Your task to perform on an android device: turn notification dots off Image 0: 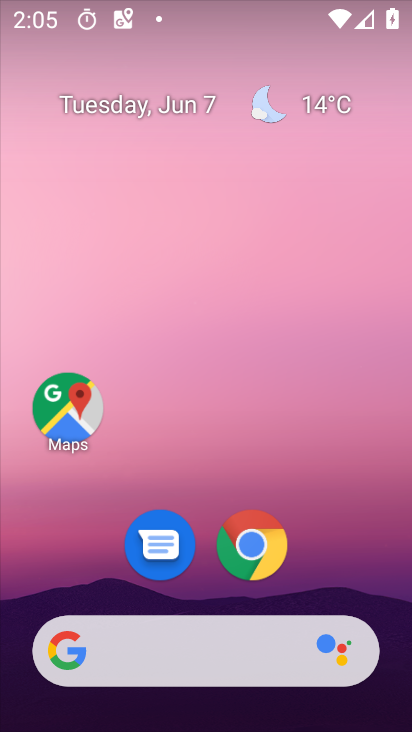
Step 0: drag from (377, 219) to (364, 2)
Your task to perform on an android device: turn notification dots off Image 1: 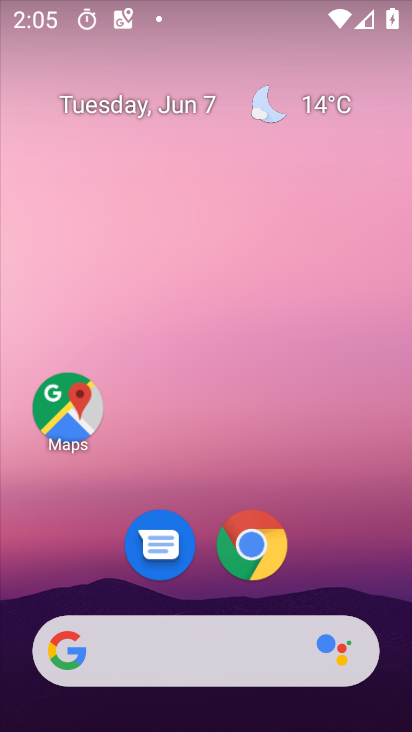
Step 1: drag from (333, 533) to (242, 24)
Your task to perform on an android device: turn notification dots off Image 2: 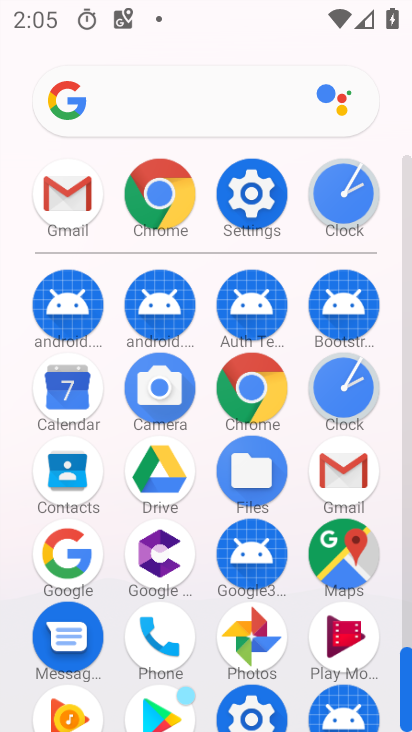
Step 2: click (252, 182)
Your task to perform on an android device: turn notification dots off Image 3: 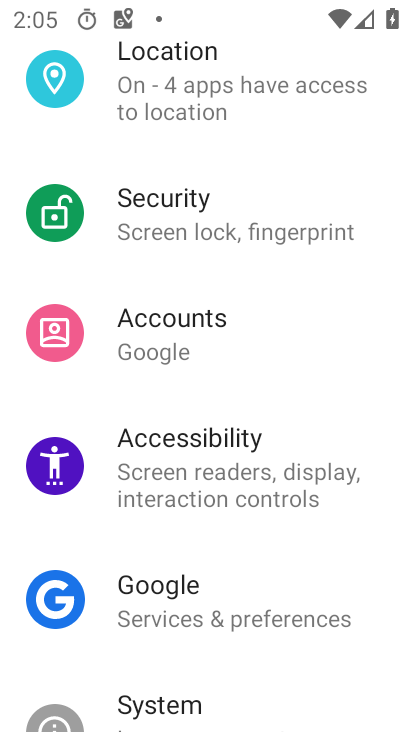
Step 3: drag from (274, 279) to (343, 717)
Your task to perform on an android device: turn notification dots off Image 4: 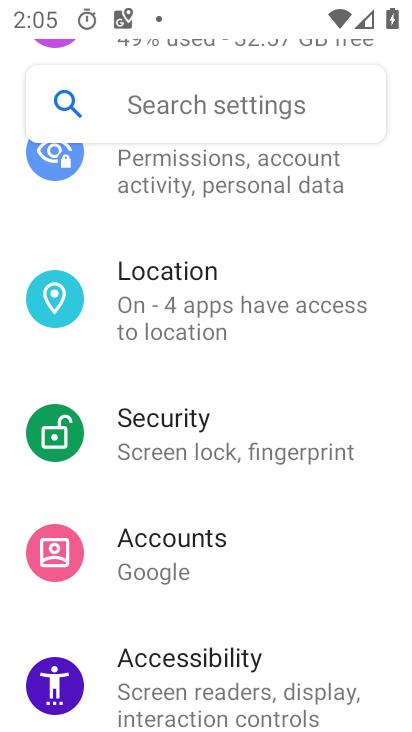
Step 4: drag from (258, 203) to (306, 730)
Your task to perform on an android device: turn notification dots off Image 5: 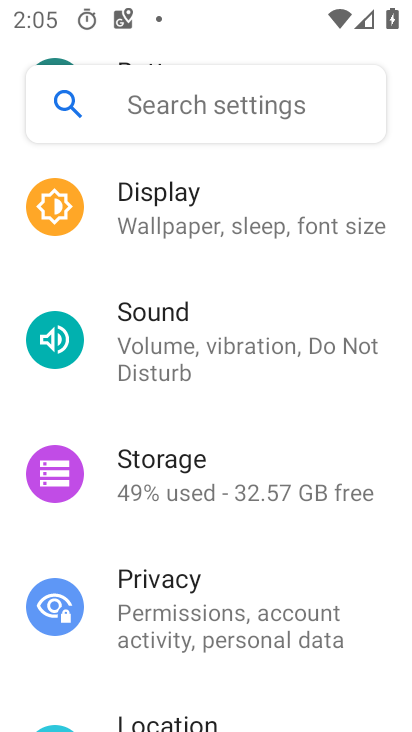
Step 5: drag from (255, 270) to (304, 725)
Your task to perform on an android device: turn notification dots off Image 6: 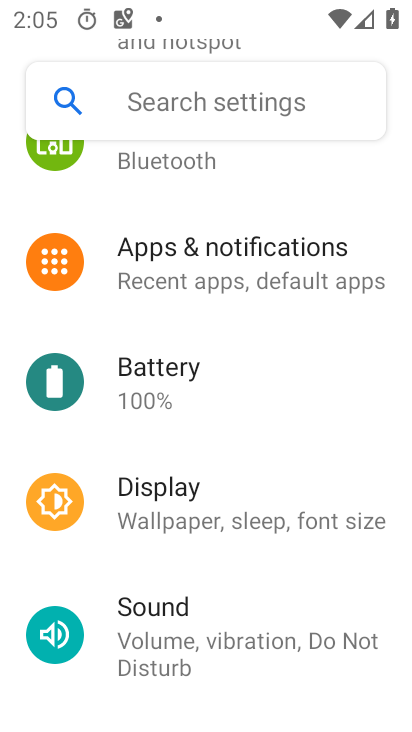
Step 6: click (203, 254)
Your task to perform on an android device: turn notification dots off Image 7: 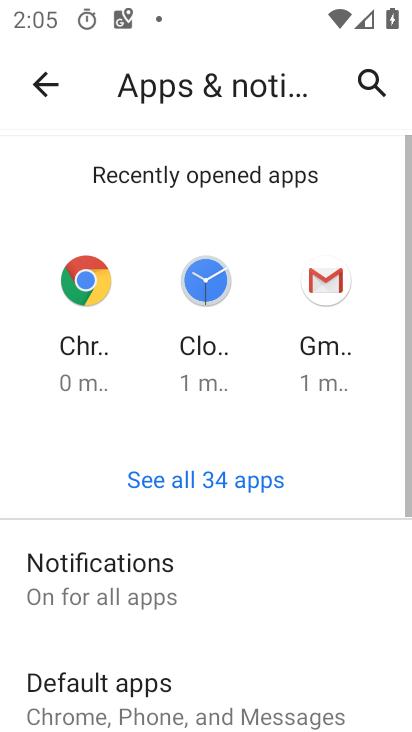
Step 7: drag from (295, 574) to (306, 163)
Your task to perform on an android device: turn notification dots off Image 8: 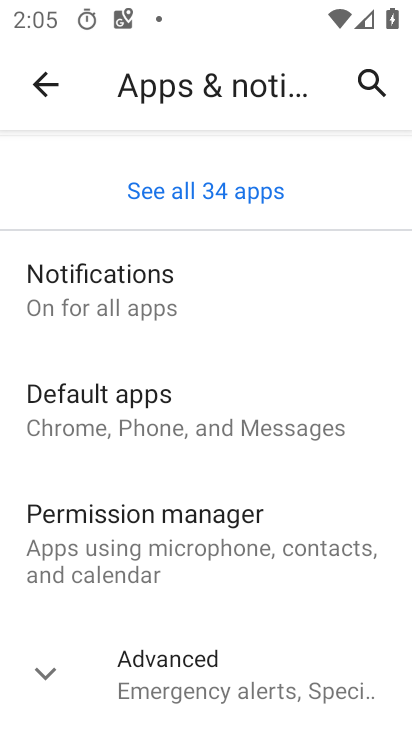
Step 8: drag from (218, 557) to (225, 34)
Your task to perform on an android device: turn notification dots off Image 9: 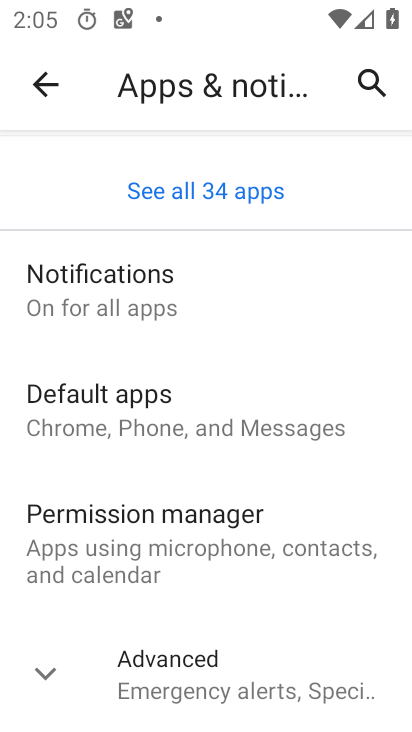
Step 9: drag from (279, 429) to (278, 99)
Your task to perform on an android device: turn notification dots off Image 10: 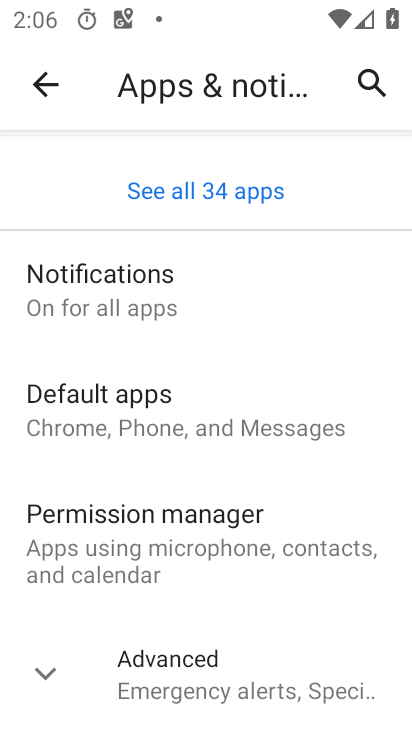
Step 10: click (212, 678)
Your task to perform on an android device: turn notification dots off Image 11: 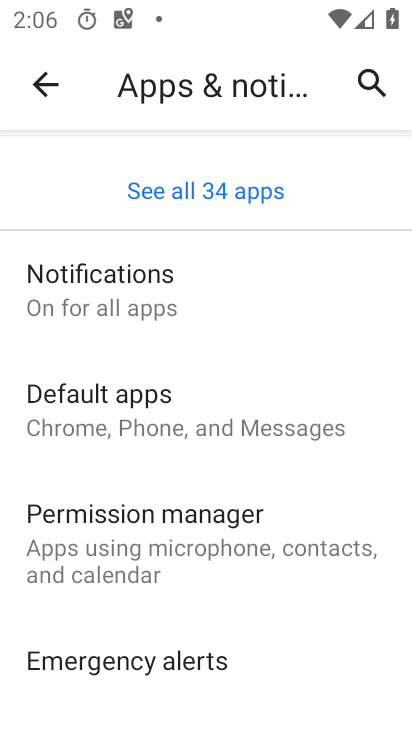
Step 11: click (182, 312)
Your task to perform on an android device: turn notification dots off Image 12: 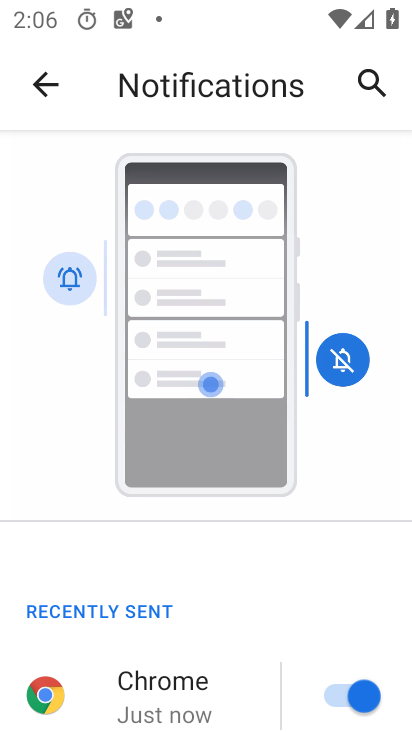
Step 12: drag from (284, 631) to (230, 13)
Your task to perform on an android device: turn notification dots off Image 13: 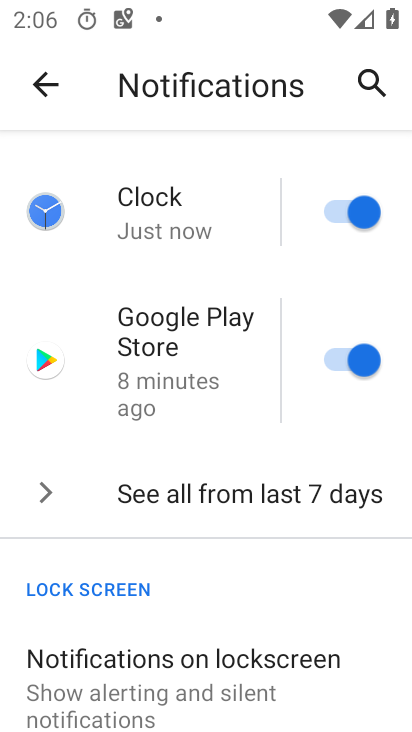
Step 13: drag from (245, 460) to (284, 44)
Your task to perform on an android device: turn notification dots off Image 14: 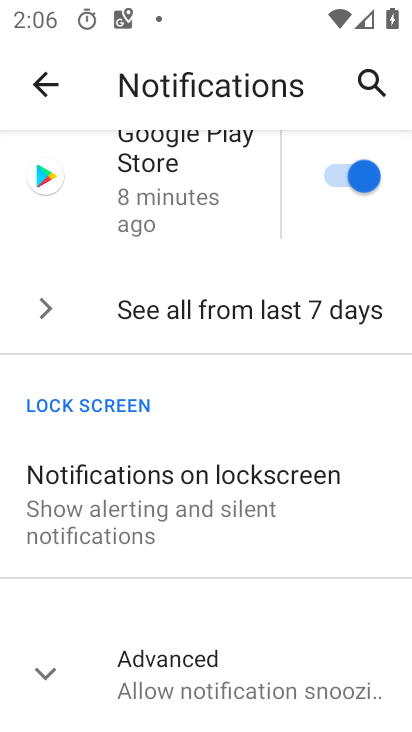
Step 14: click (223, 669)
Your task to perform on an android device: turn notification dots off Image 15: 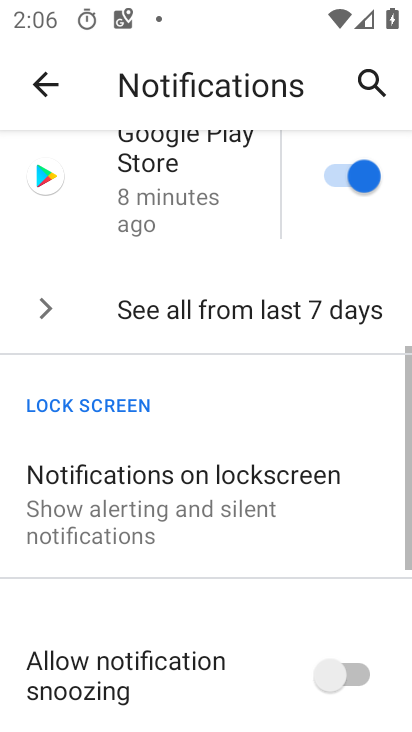
Step 15: drag from (202, 634) to (234, 93)
Your task to perform on an android device: turn notification dots off Image 16: 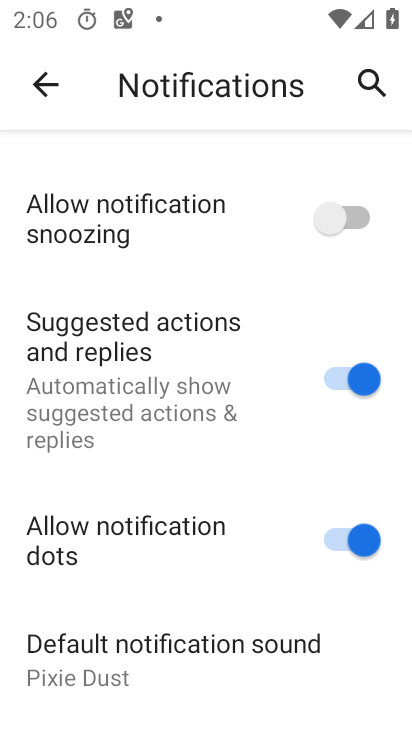
Step 16: click (359, 543)
Your task to perform on an android device: turn notification dots off Image 17: 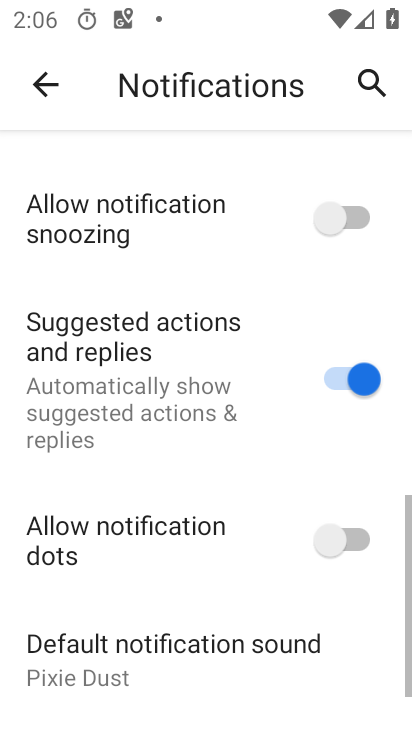
Step 17: task complete